Your task to perform on an android device: change timer sound Image 0: 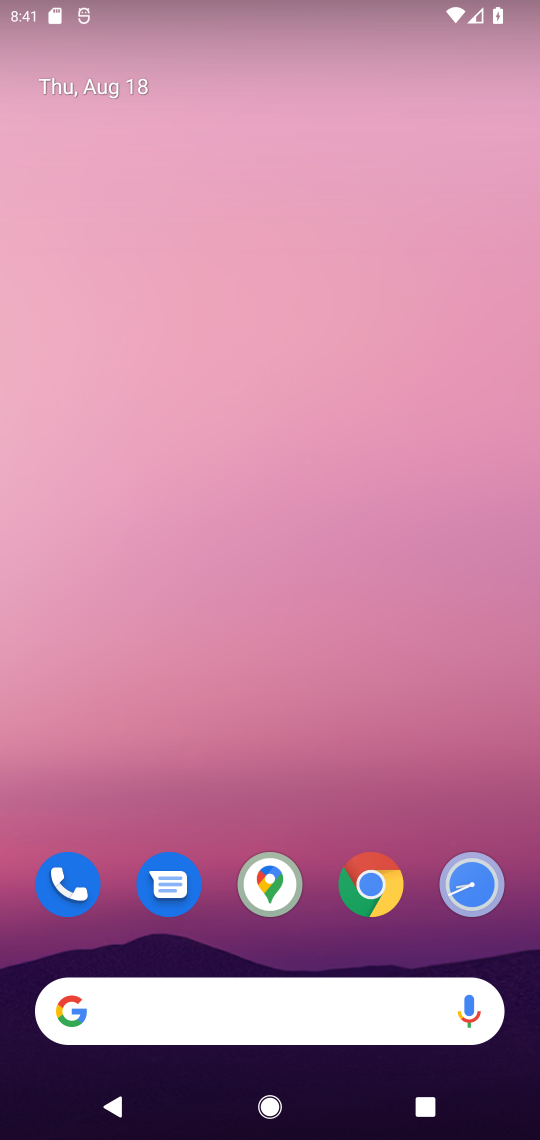
Step 0: click (479, 888)
Your task to perform on an android device: change timer sound Image 1: 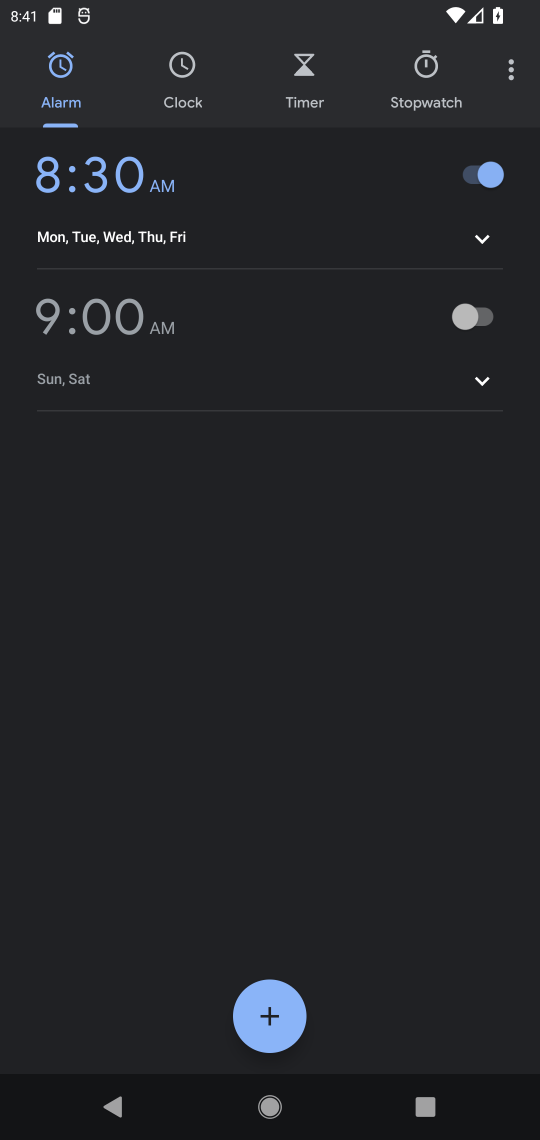
Step 1: click (514, 67)
Your task to perform on an android device: change timer sound Image 2: 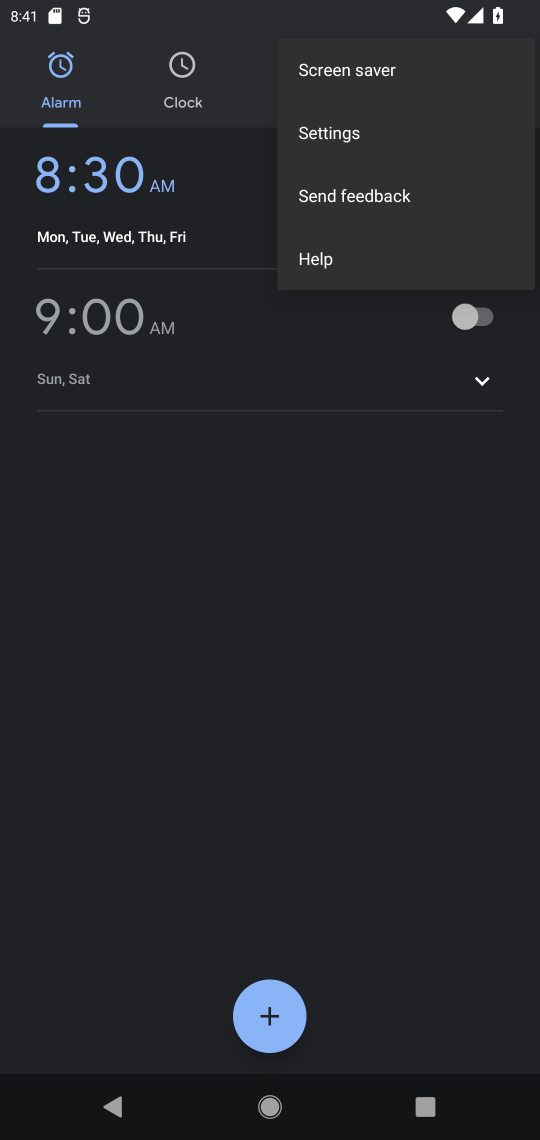
Step 2: click (338, 130)
Your task to perform on an android device: change timer sound Image 3: 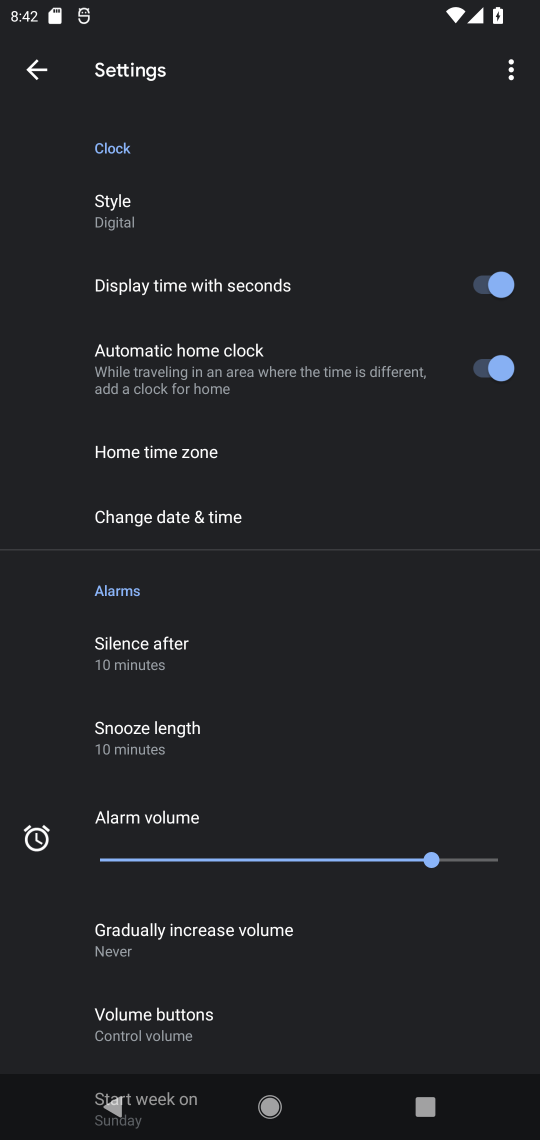
Step 3: drag from (291, 1002) to (301, 223)
Your task to perform on an android device: change timer sound Image 4: 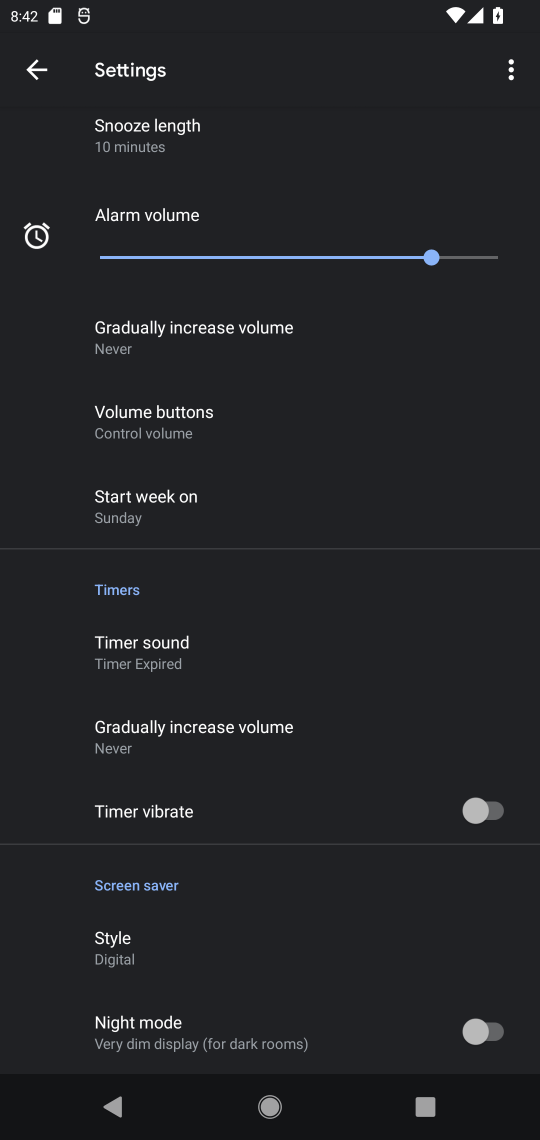
Step 4: click (185, 666)
Your task to perform on an android device: change timer sound Image 5: 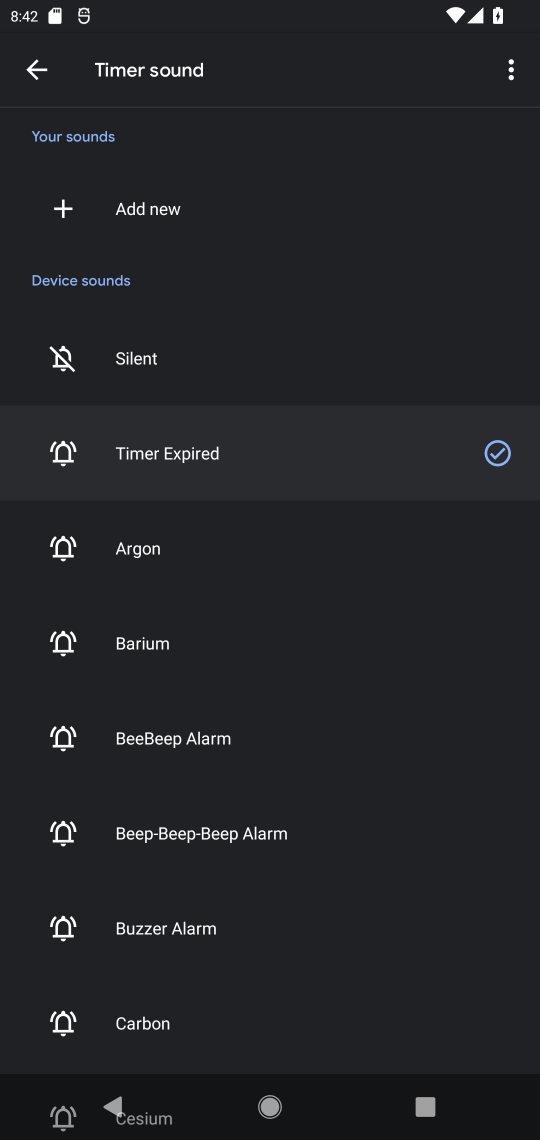
Step 5: click (244, 835)
Your task to perform on an android device: change timer sound Image 6: 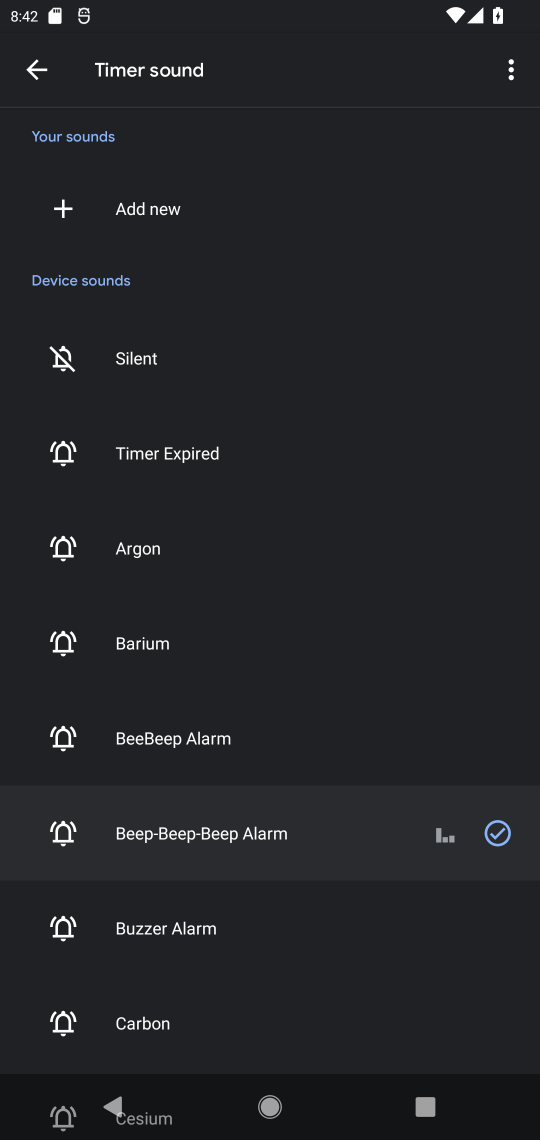
Step 6: task complete